Your task to perform on an android device: all mails in gmail Image 0: 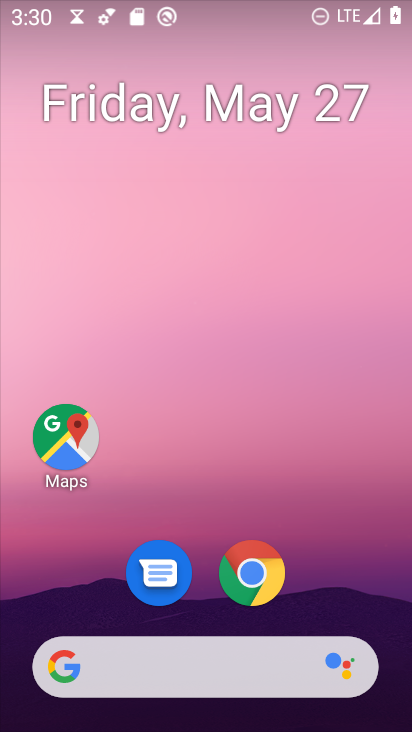
Step 0: drag from (314, 580) to (288, 29)
Your task to perform on an android device: all mails in gmail Image 1: 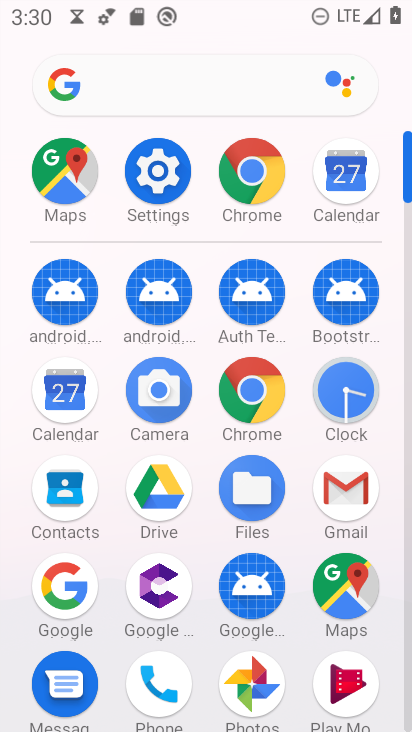
Step 1: click (346, 491)
Your task to perform on an android device: all mails in gmail Image 2: 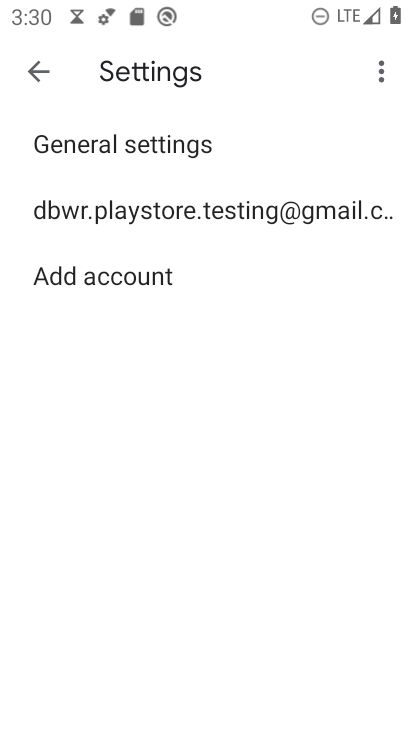
Step 2: click (34, 67)
Your task to perform on an android device: all mails in gmail Image 3: 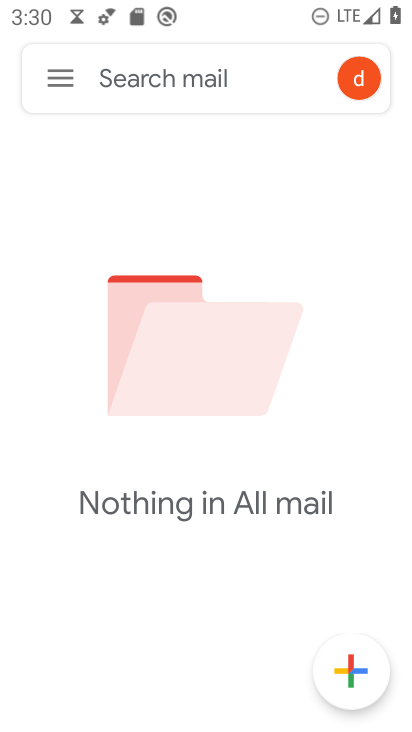
Step 3: click (59, 88)
Your task to perform on an android device: all mails in gmail Image 4: 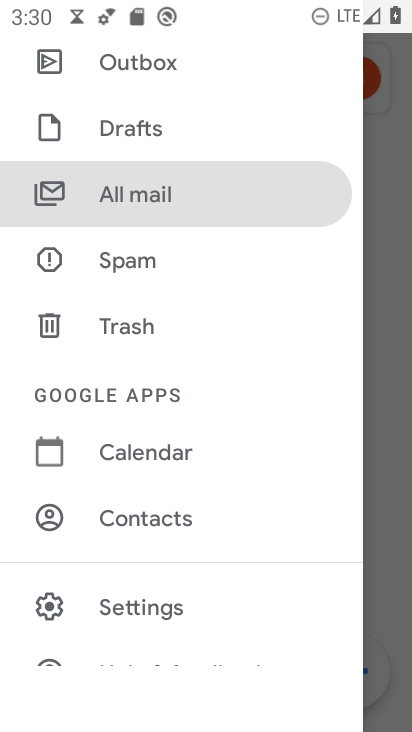
Step 4: click (126, 193)
Your task to perform on an android device: all mails in gmail Image 5: 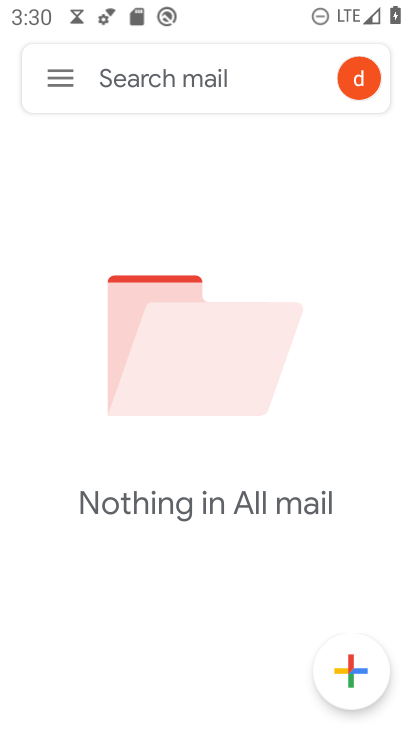
Step 5: task complete